Your task to perform on an android device: turn notification dots on Image 0: 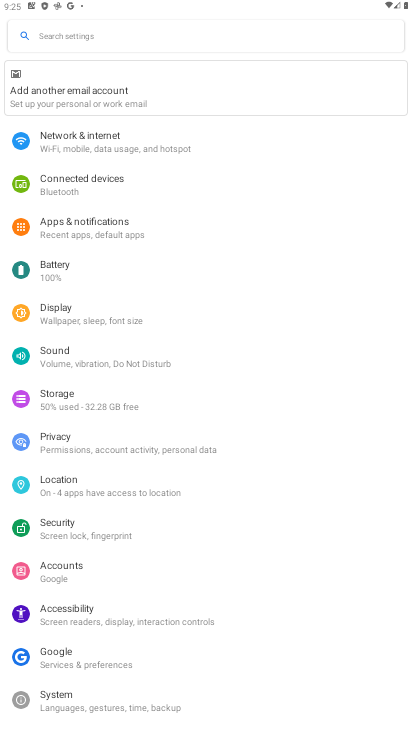
Step 0: click (136, 246)
Your task to perform on an android device: turn notification dots on Image 1: 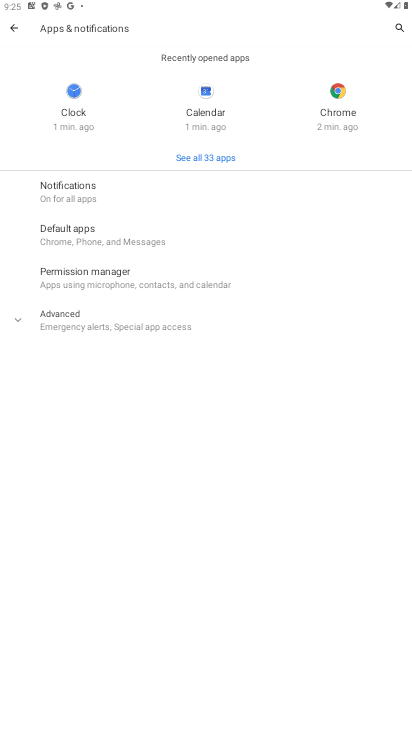
Step 1: click (138, 201)
Your task to perform on an android device: turn notification dots on Image 2: 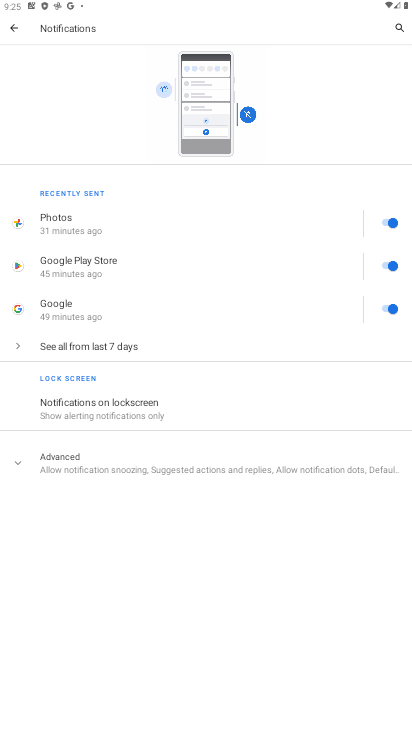
Step 2: click (153, 463)
Your task to perform on an android device: turn notification dots on Image 3: 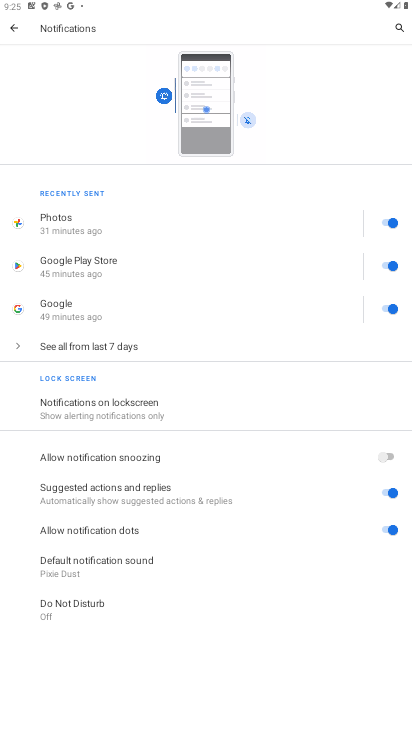
Step 3: task complete